Your task to perform on an android device: Is it going to rain today? Image 0: 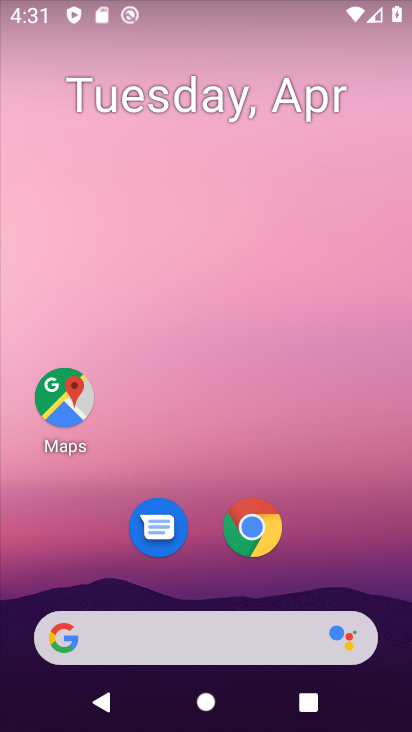
Step 0: drag from (237, 311) to (246, 135)
Your task to perform on an android device: Is it going to rain today? Image 1: 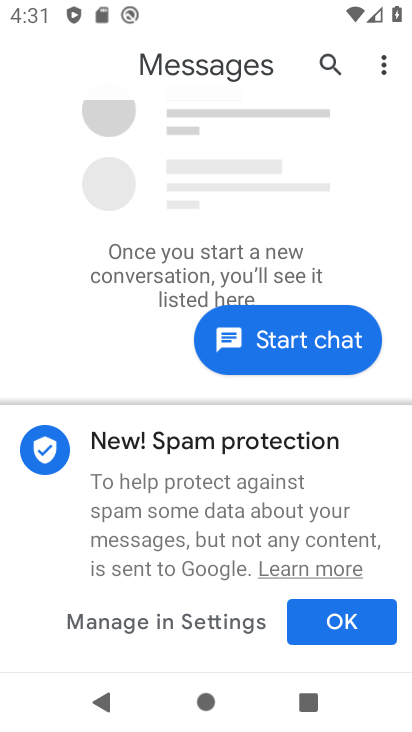
Step 1: press home button
Your task to perform on an android device: Is it going to rain today? Image 2: 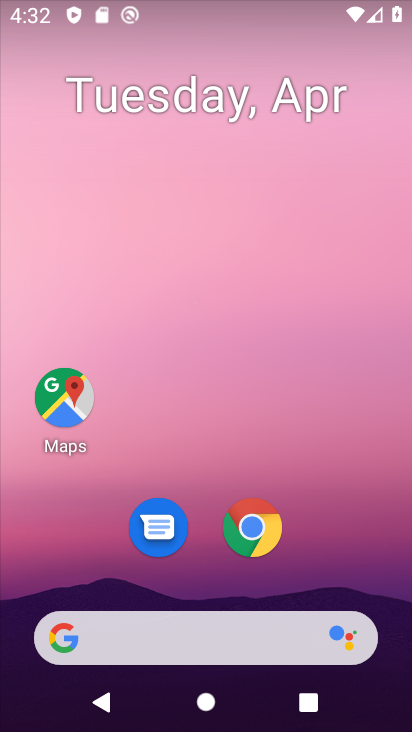
Step 2: drag from (188, 547) to (218, 142)
Your task to perform on an android device: Is it going to rain today? Image 3: 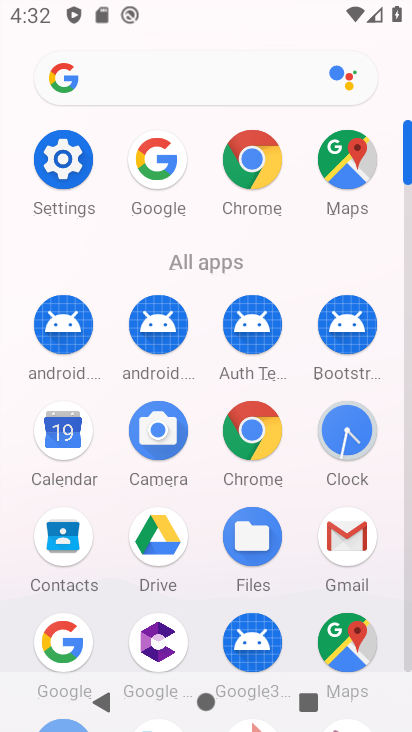
Step 3: click (171, 158)
Your task to perform on an android device: Is it going to rain today? Image 4: 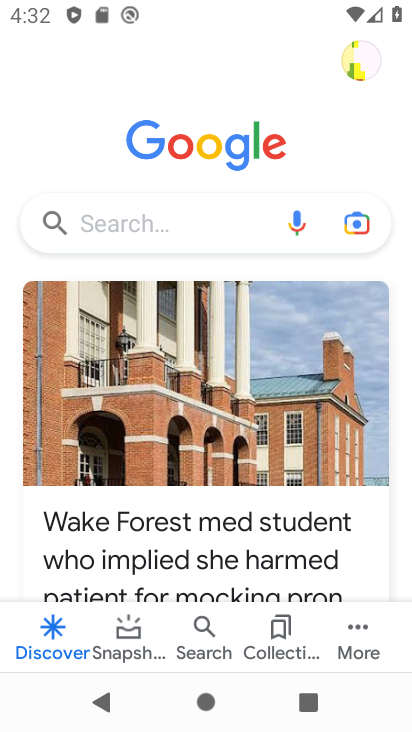
Step 4: click (142, 219)
Your task to perform on an android device: Is it going to rain today? Image 5: 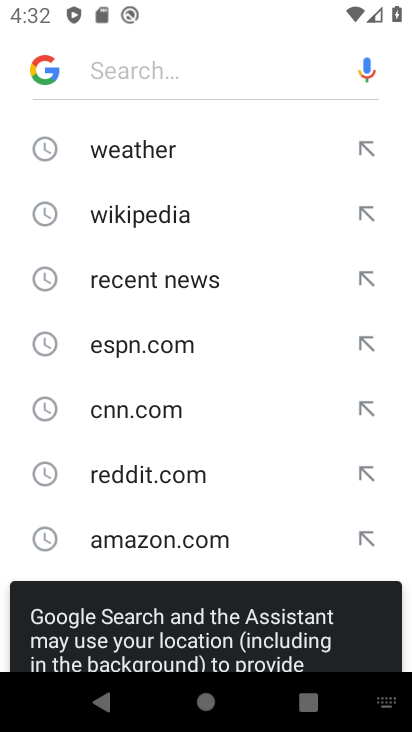
Step 5: click (178, 151)
Your task to perform on an android device: Is it going to rain today? Image 6: 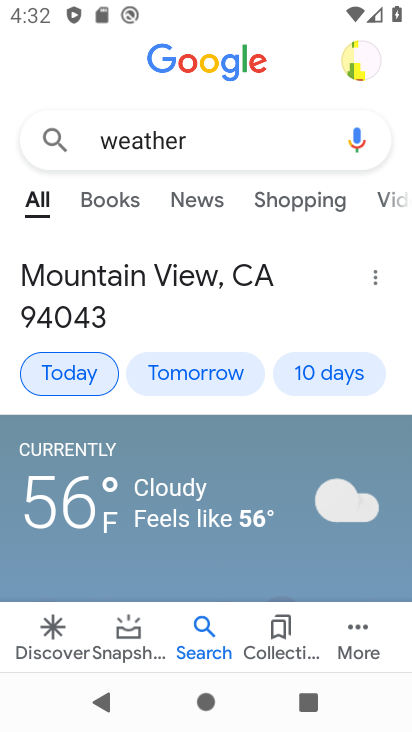
Step 6: task complete